Your task to perform on an android device: set an alarm Image 0: 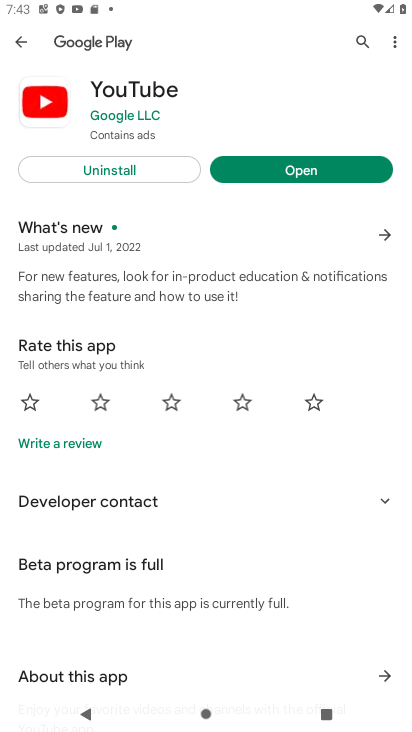
Step 0: press home button
Your task to perform on an android device: set an alarm Image 1: 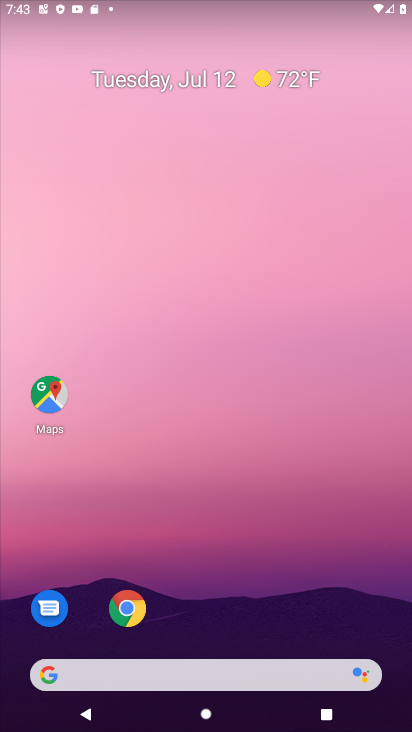
Step 1: drag from (373, 603) to (383, 208)
Your task to perform on an android device: set an alarm Image 2: 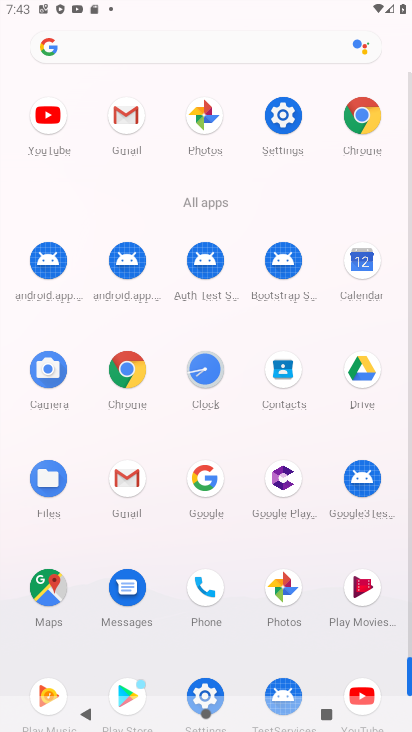
Step 2: click (207, 372)
Your task to perform on an android device: set an alarm Image 3: 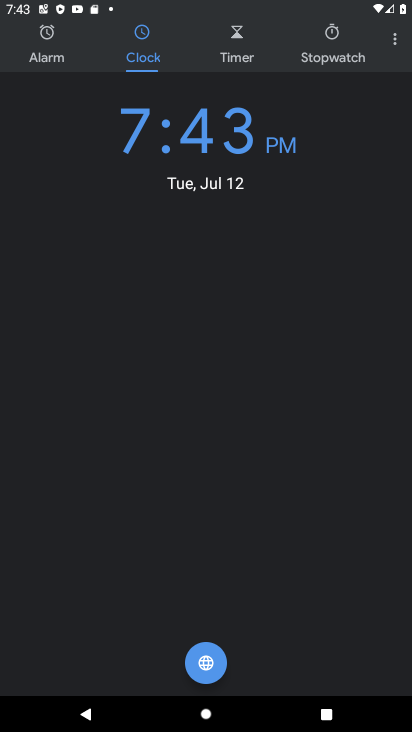
Step 3: click (50, 54)
Your task to perform on an android device: set an alarm Image 4: 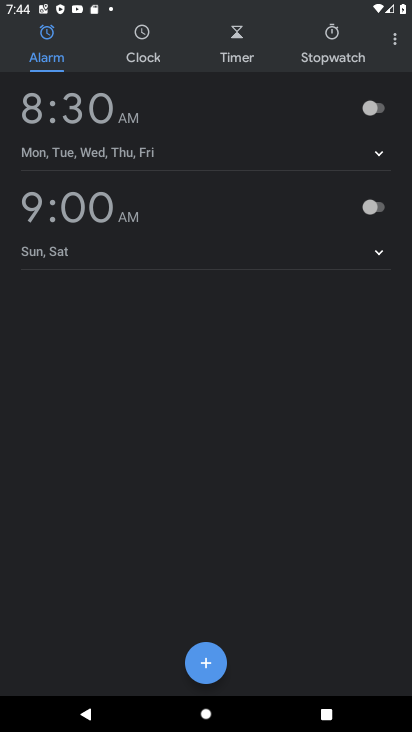
Step 4: click (213, 656)
Your task to perform on an android device: set an alarm Image 5: 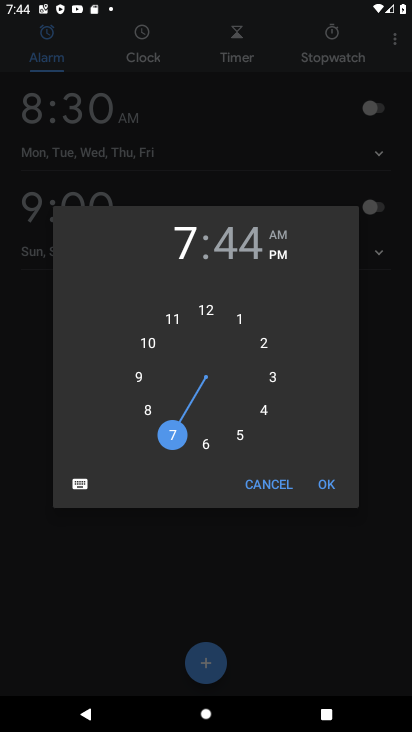
Step 5: click (325, 481)
Your task to perform on an android device: set an alarm Image 6: 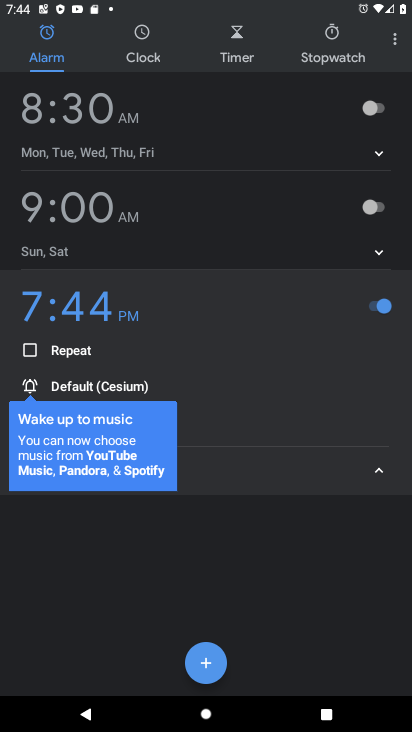
Step 6: task complete